Your task to perform on an android device: Open Youtube and go to the subscriptions tab Image 0: 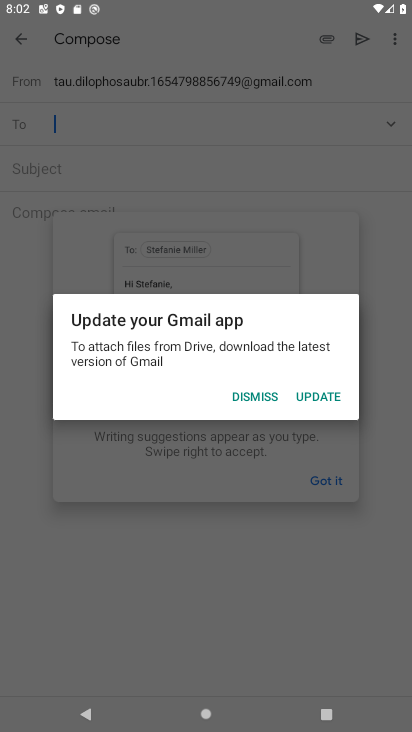
Step 0: press home button
Your task to perform on an android device: Open Youtube and go to the subscriptions tab Image 1: 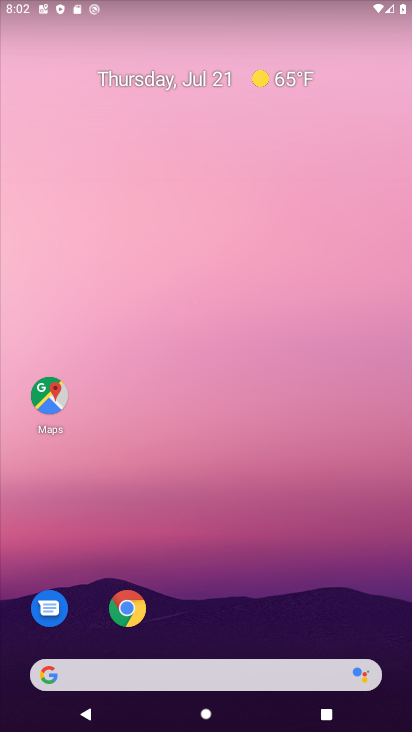
Step 1: drag from (186, 685) to (211, 245)
Your task to perform on an android device: Open Youtube and go to the subscriptions tab Image 2: 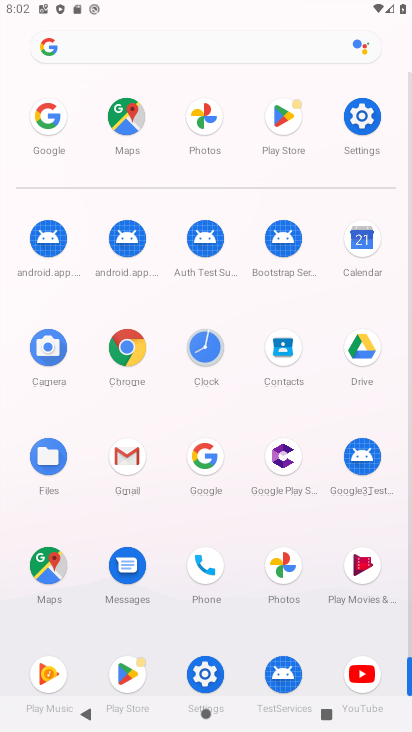
Step 2: click (363, 674)
Your task to perform on an android device: Open Youtube and go to the subscriptions tab Image 3: 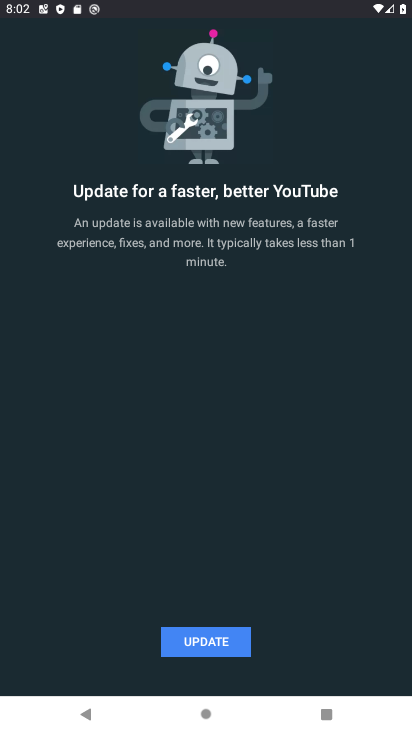
Step 3: click (216, 636)
Your task to perform on an android device: Open Youtube and go to the subscriptions tab Image 4: 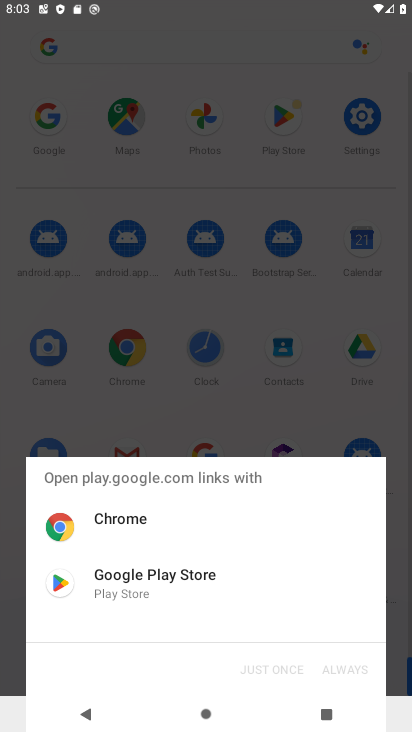
Step 4: click (161, 576)
Your task to perform on an android device: Open Youtube and go to the subscriptions tab Image 5: 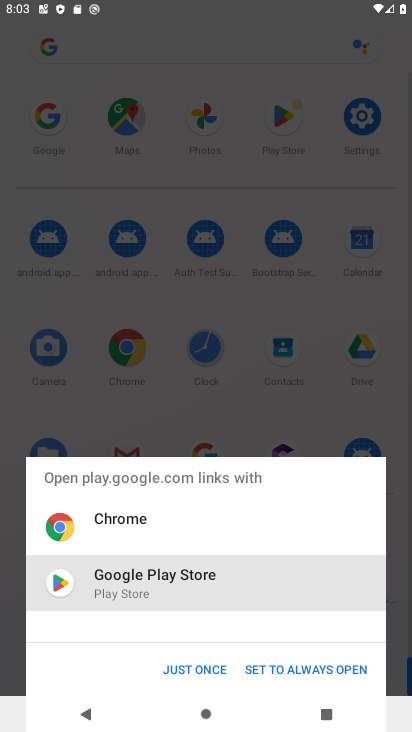
Step 5: click (196, 662)
Your task to perform on an android device: Open Youtube and go to the subscriptions tab Image 6: 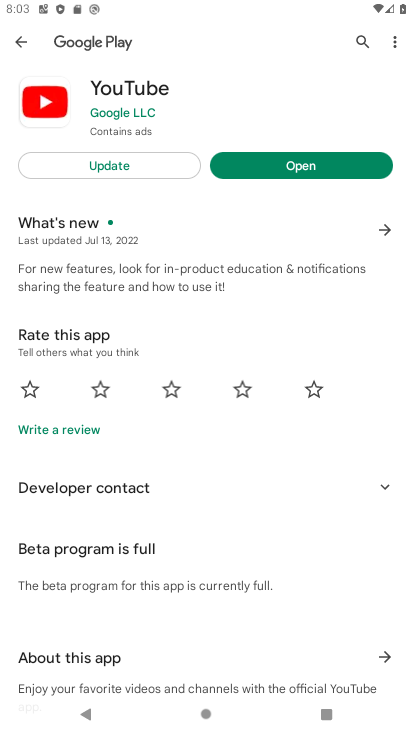
Step 6: click (109, 159)
Your task to perform on an android device: Open Youtube and go to the subscriptions tab Image 7: 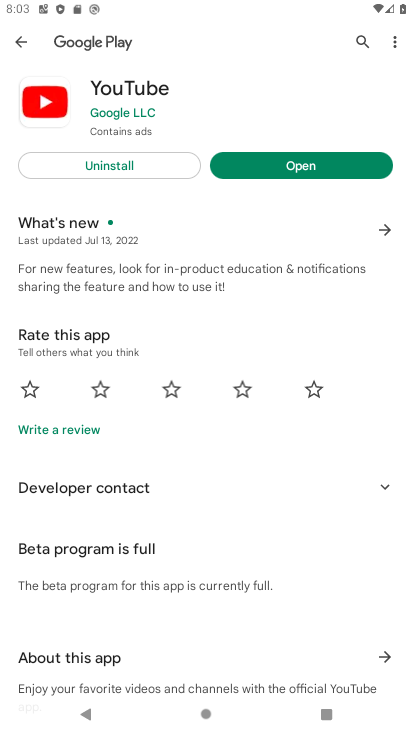
Step 7: click (273, 170)
Your task to perform on an android device: Open Youtube and go to the subscriptions tab Image 8: 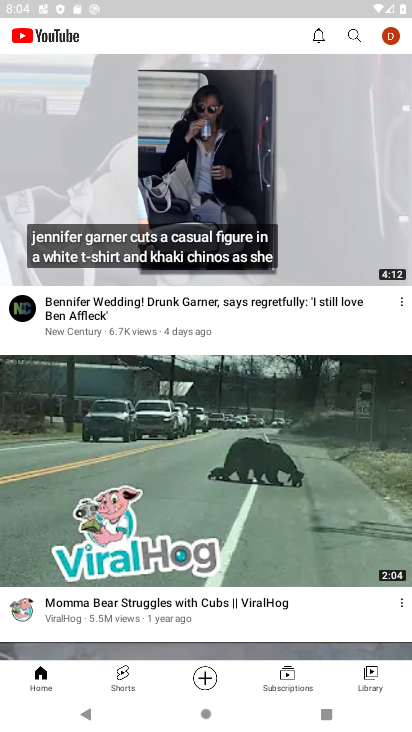
Step 8: click (294, 676)
Your task to perform on an android device: Open Youtube and go to the subscriptions tab Image 9: 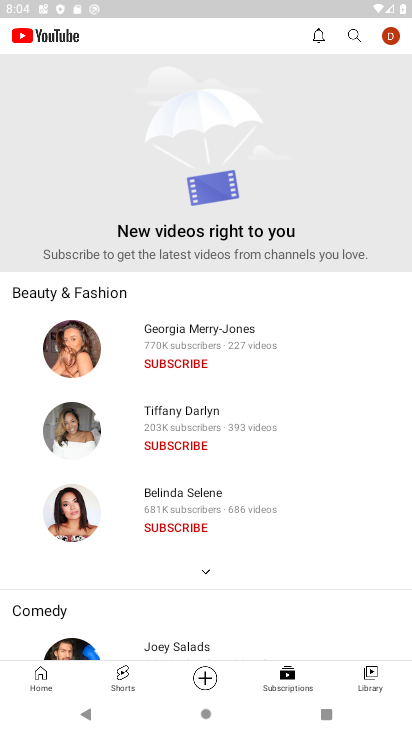
Step 9: task complete